Your task to perform on an android device: add a contact in the contacts app Image 0: 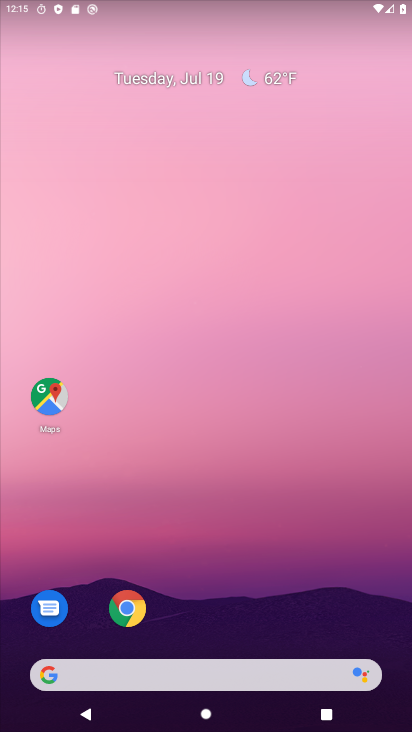
Step 0: press home button
Your task to perform on an android device: add a contact in the contacts app Image 1: 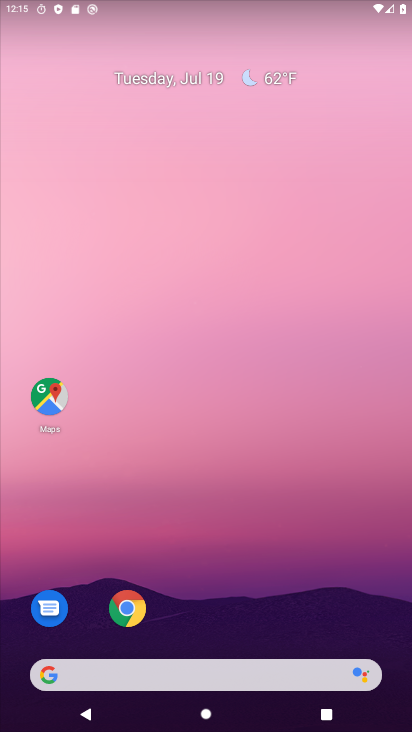
Step 1: drag from (246, 643) to (239, 17)
Your task to perform on an android device: add a contact in the contacts app Image 2: 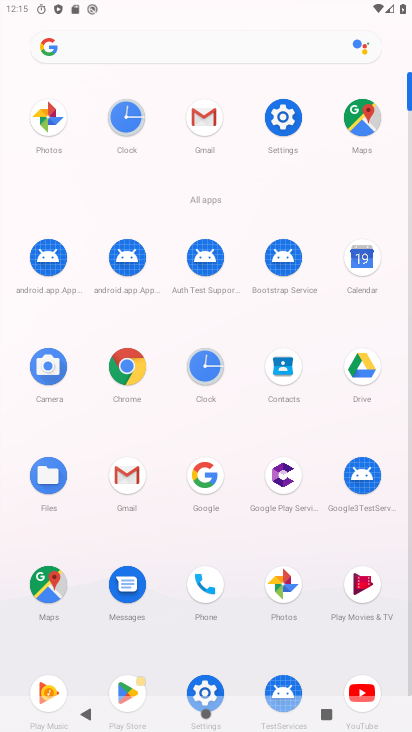
Step 2: click (281, 361)
Your task to perform on an android device: add a contact in the contacts app Image 3: 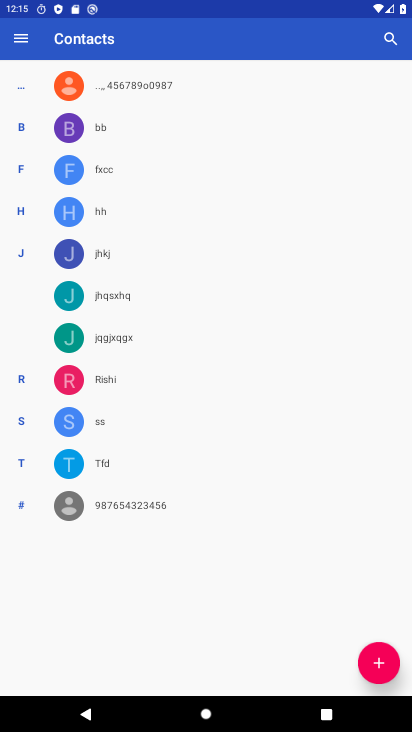
Step 3: click (377, 663)
Your task to perform on an android device: add a contact in the contacts app Image 4: 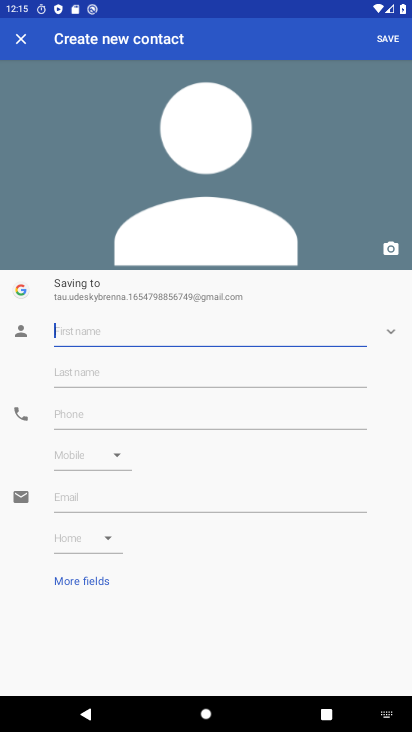
Step 4: type "gvfhbg"
Your task to perform on an android device: add a contact in the contacts app Image 5: 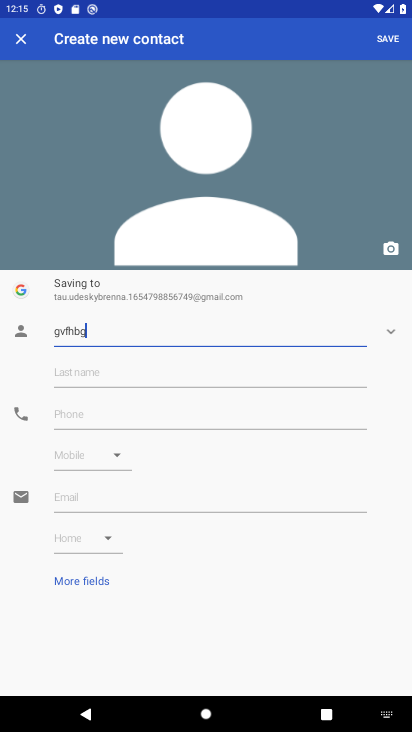
Step 5: type ""
Your task to perform on an android device: add a contact in the contacts app Image 6: 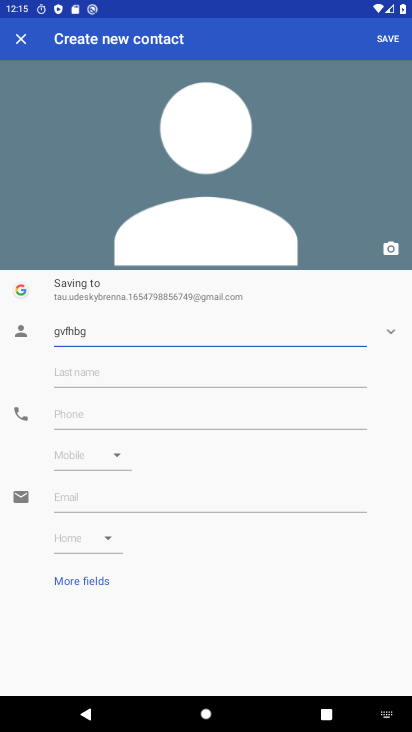
Step 6: click (388, 46)
Your task to perform on an android device: add a contact in the contacts app Image 7: 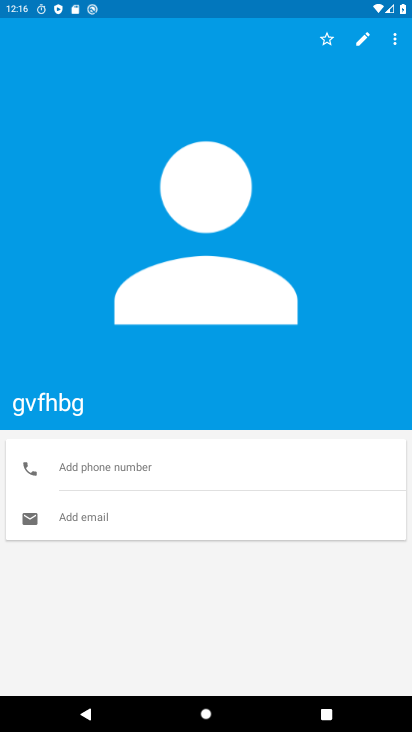
Step 7: task complete